Your task to perform on an android device: check google app version Image 0: 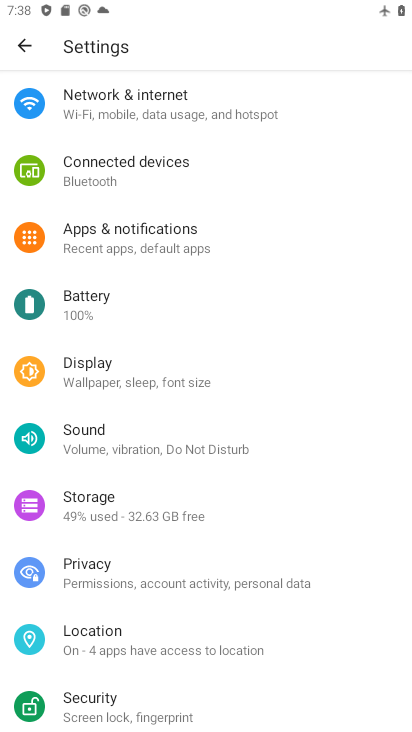
Step 0: press home button
Your task to perform on an android device: check google app version Image 1: 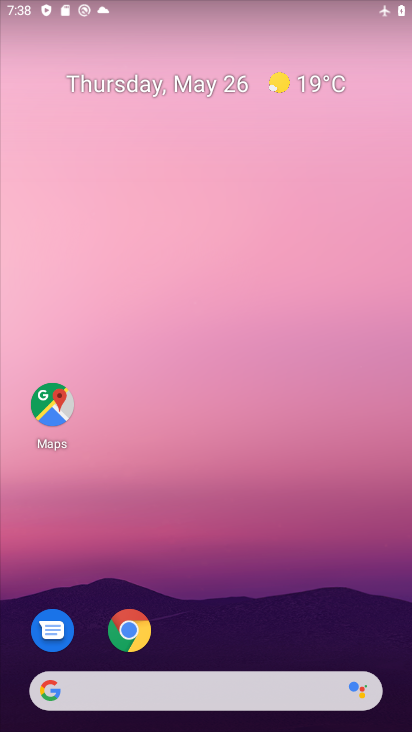
Step 1: drag from (236, 610) to (172, 283)
Your task to perform on an android device: check google app version Image 2: 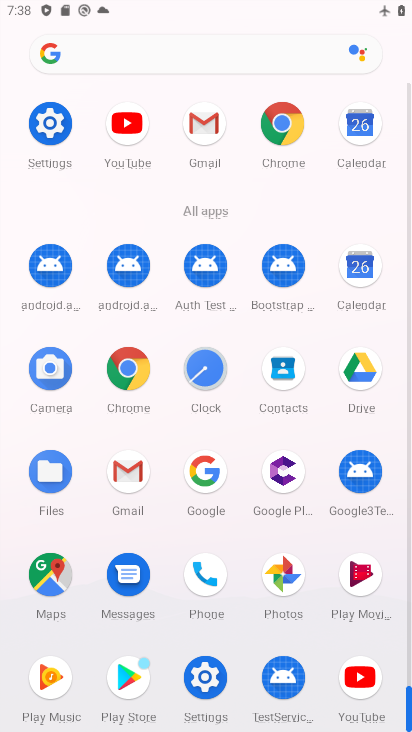
Step 2: click (201, 468)
Your task to perform on an android device: check google app version Image 3: 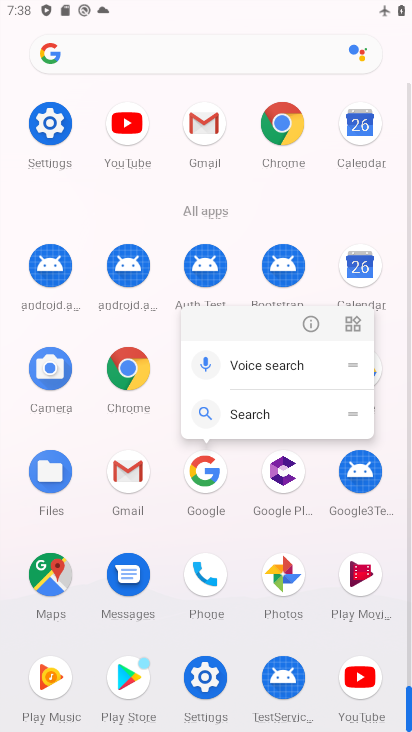
Step 3: click (309, 322)
Your task to perform on an android device: check google app version Image 4: 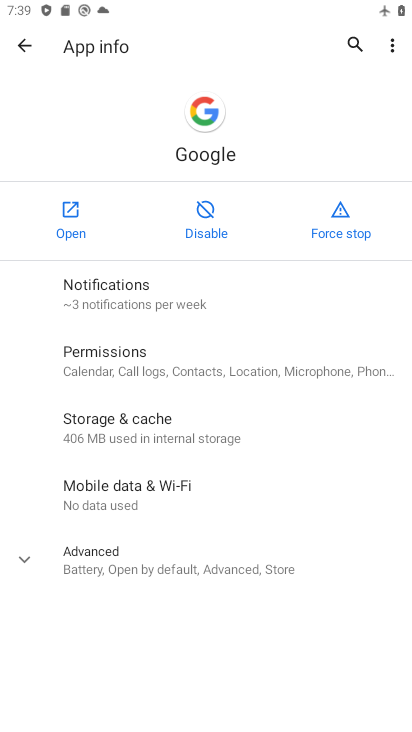
Step 4: click (160, 569)
Your task to perform on an android device: check google app version Image 5: 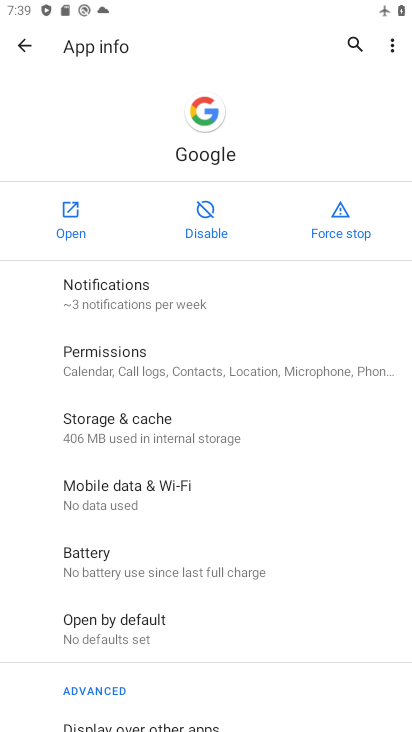
Step 5: task complete